Your task to perform on an android device: turn on airplane mode Image 0: 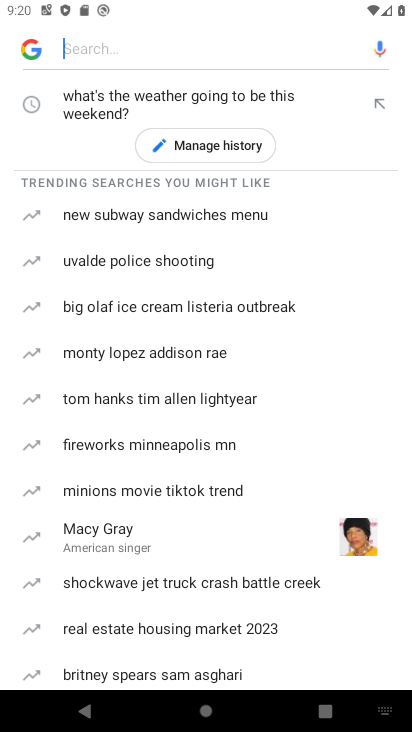
Step 0: press home button
Your task to perform on an android device: turn on airplane mode Image 1: 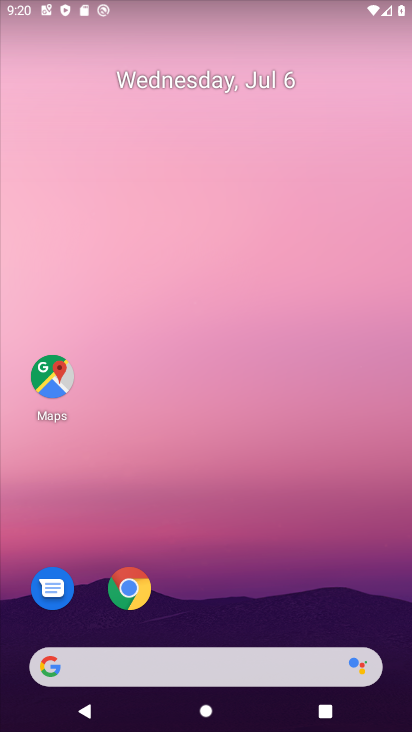
Step 1: drag from (189, 669) to (397, 17)
Your task to perform on an android device: turn on airplane mode Image 2: 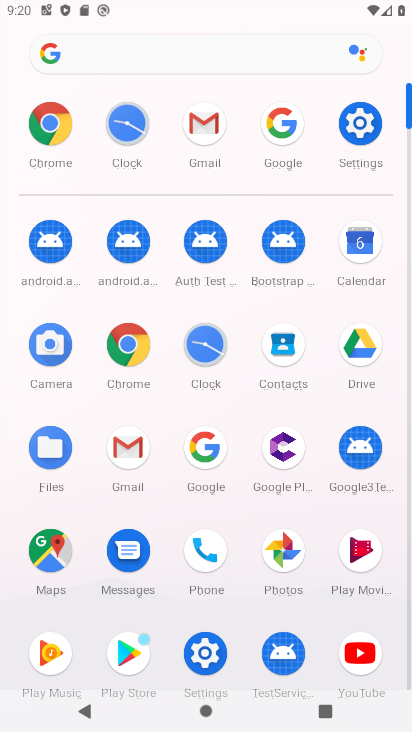
Step 2: click (361, 120)
Your task to perform on an android device: turn on airplane mode Image 3: 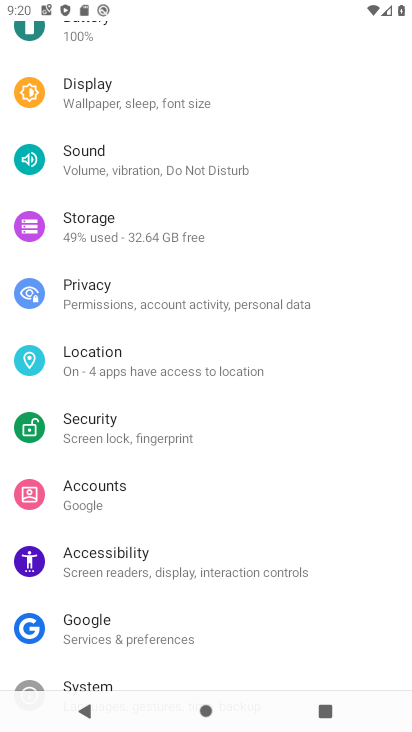
Step 3: drag from (288, 81) to (240, 561)
Your task to perform on an android device: turn on airplane mode Image 4: 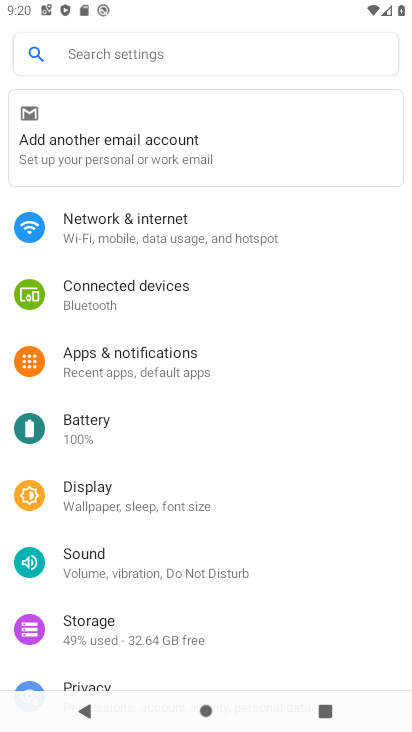
Step 4: click (135, 220)
Your task to perform on an android device: turn on airplane mode Image 5: 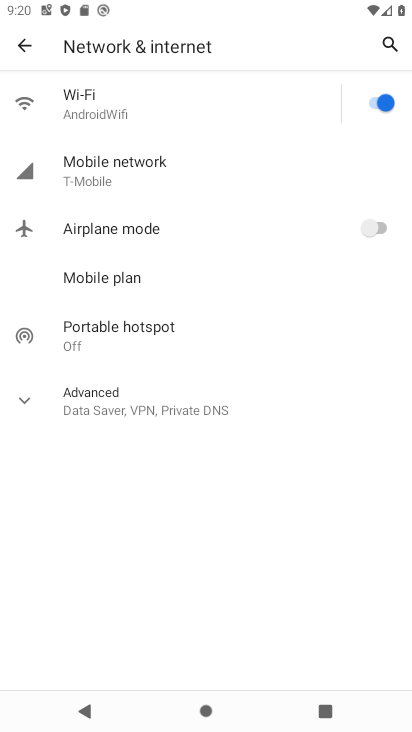
Step 5: click (383, 224)
Your task to perform on an android device: turn on airplane mode Image 6: 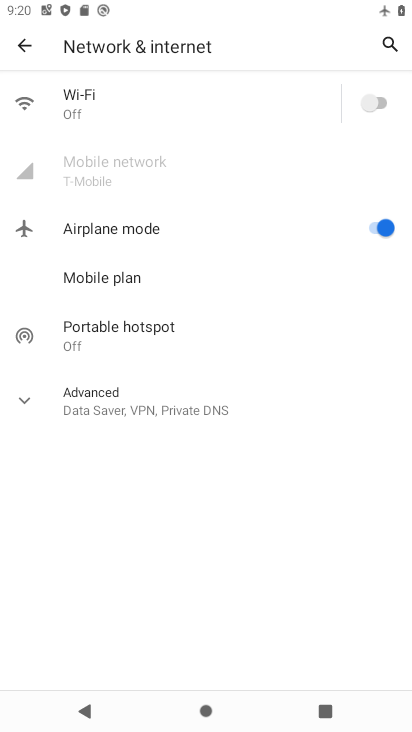
Step 6: task complete